Your task to perform on an android device: add a contact in the contacts app Image 0: 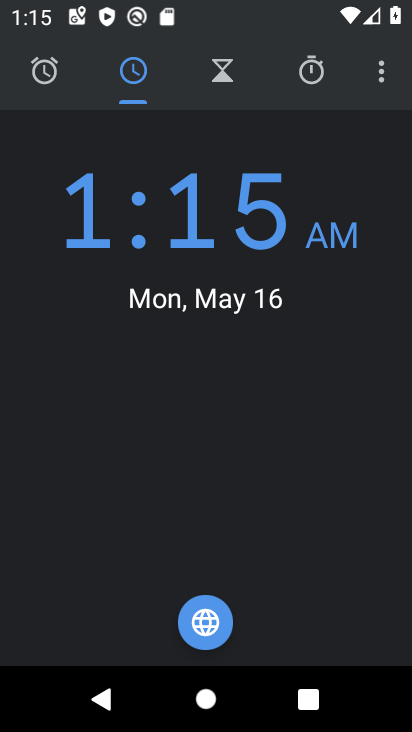
Step 0: press home button
Your task to perform on an android device: add a contact in the contacts app Image 1: 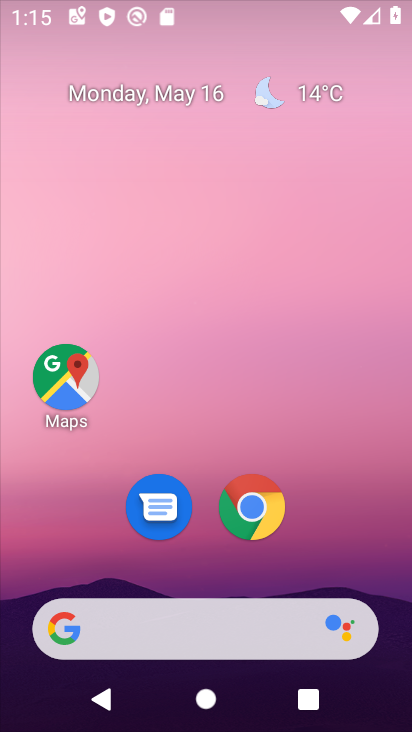
Step 1: drag from (266, 576) to (351, 150)
Your task to perform on an android device: add a contact in the contacts app Image 2: 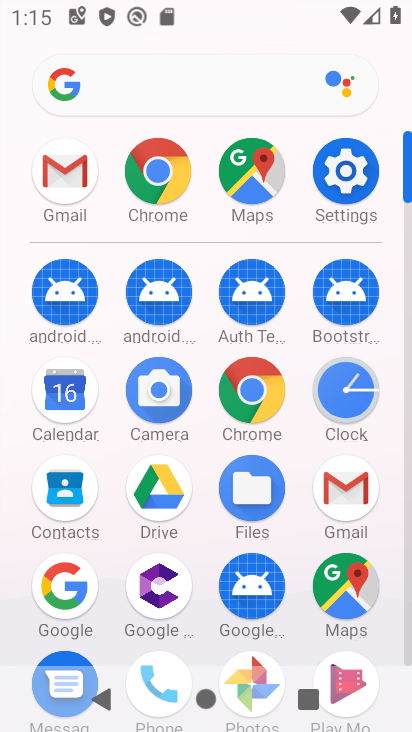
Step 2: click (80, 487)
Your task to perform on an android device: add a contact in the contacts app Image 3: 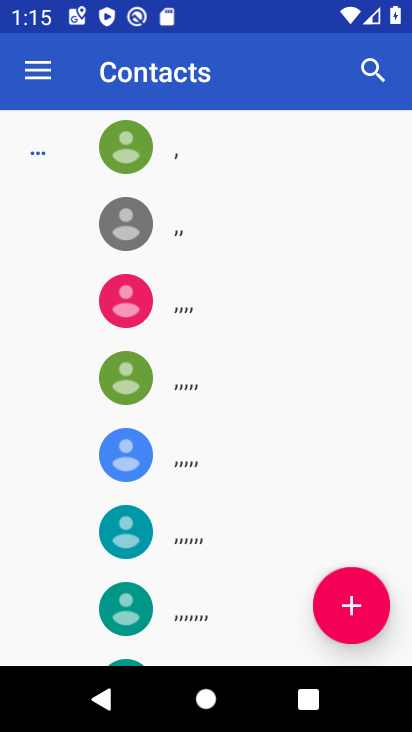
Step 3: click (344, 612)
Your task to perform on an android device: add a contact in the contacts app Image 4: 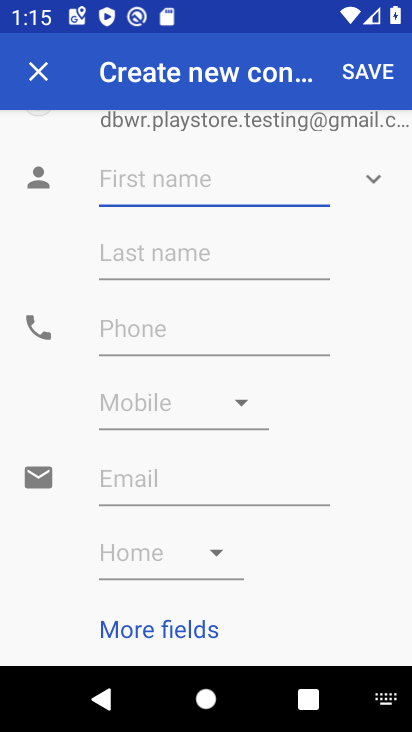
Step 4: click (239, 165)
Your task to perform on an android device: add a contact in the contacts app Image 5: 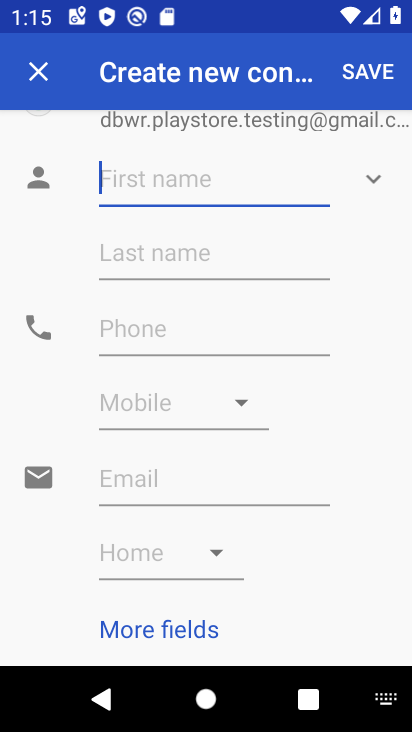
Step 5: type "tdrdtfht"
Your task to perform on an android device: add a contact in the contacts app Image 6: 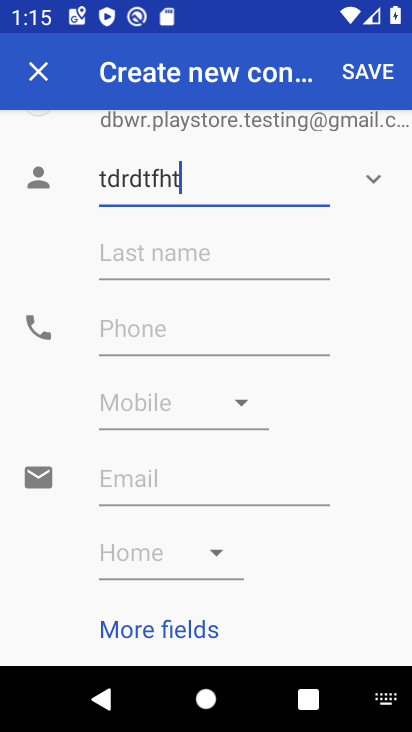
Step 6: type ""
Your task to perform on an android device: add a contact in the contacts app Image 7: 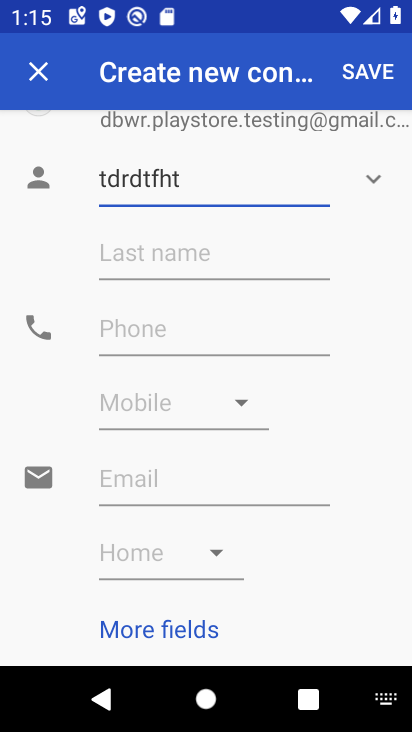
Step 7: click (388, 65)
Your task to perform on an android device: add a contact in the contacts app Image 8: 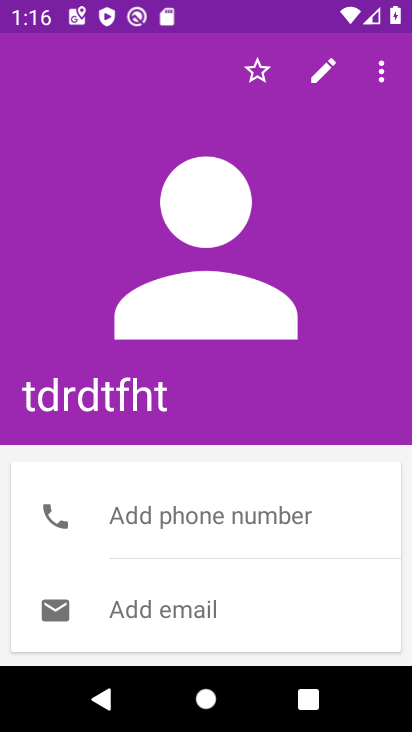
Step 8: task complete